Your task to perform on an android device: What's the weather today? Image 0: 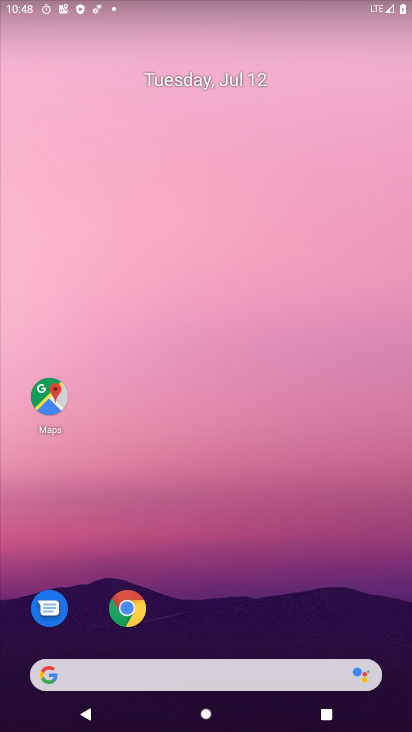
Step 0: click (205, 670)
Your task to perform on an android device: What's the weather today? Image 1: 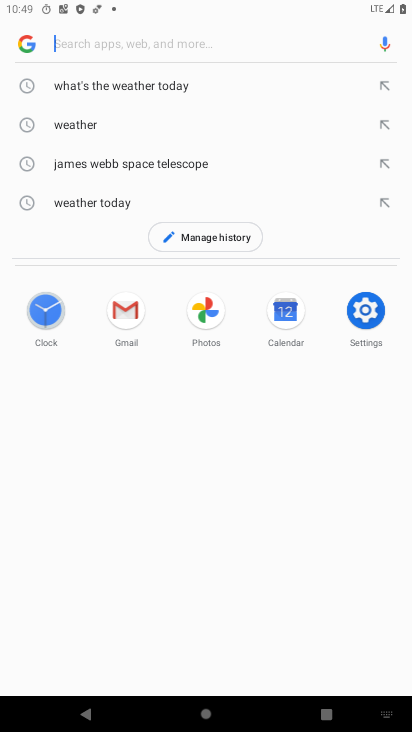
Step 1: type "what's the weather today?"
Your task to perform on an android device: What's the weather today? Image 2: 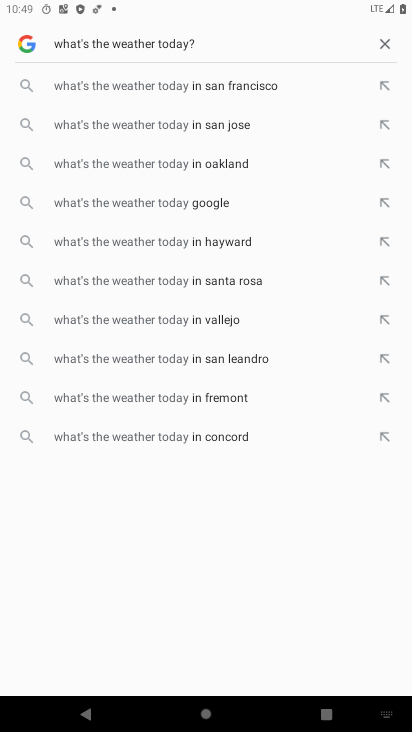
Step 2: click (195, 199)
Your task to perform on an android device: What's the weather today? Image 3: 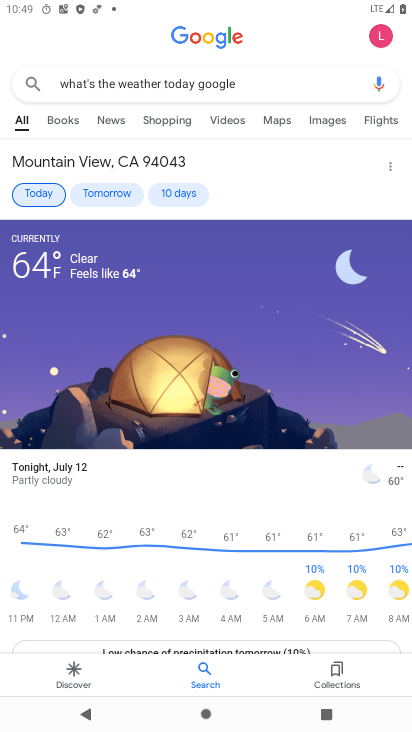
Step 3: task complete